Your task to perform on an android device: empty trash in the gmail app Image 0: 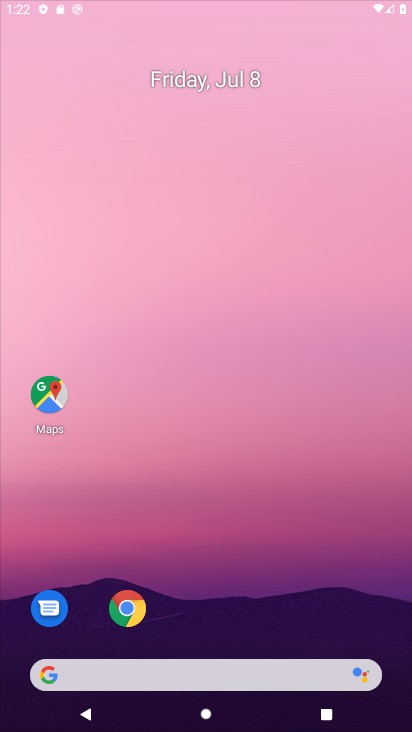
Step 0: drag from (198, 644) to (297, 89)
Your task to perform on an android device: empty trash in the gmail app Image 1: 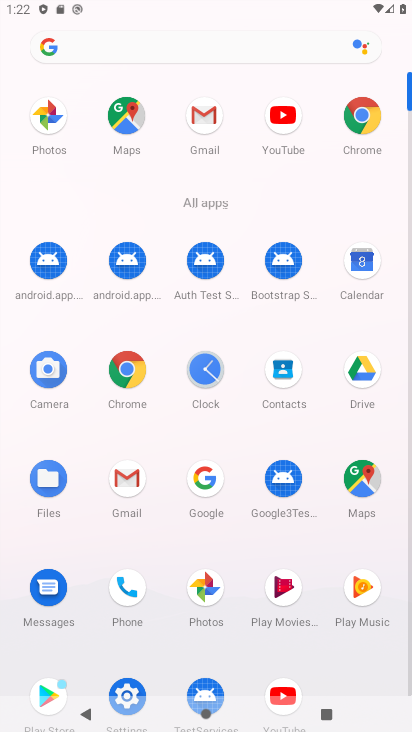
Step 1: click (131, 461)
Your task to perform on an android device: empty trash in the gmail app Image 2: 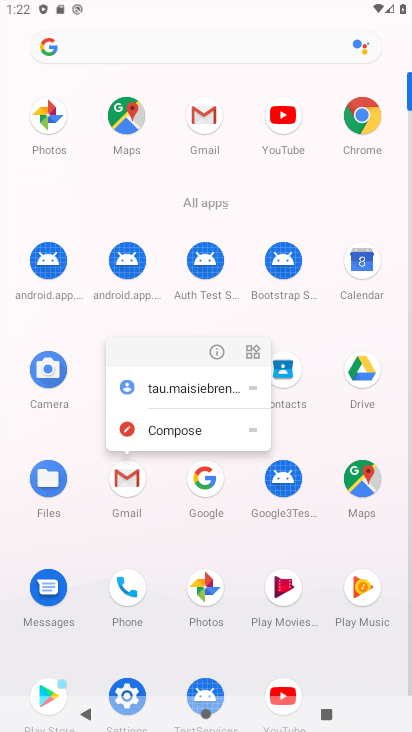
Step 2: click (130, 476)
Your task to perform on an android device: empty trash in the gmail app Image 3: 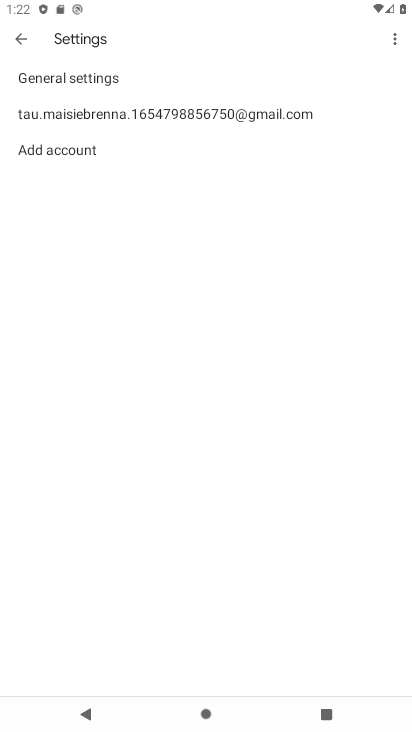
Step 3: press back button
Your task to perform on an android device: empty trash in the gmail app Image 4: 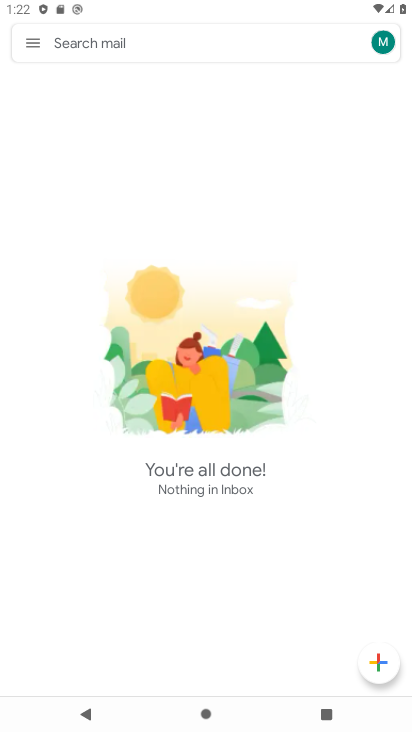
Step 4: click (35, 33)
Your task to perform on an android device: empty trash in the gmail app Image 5: 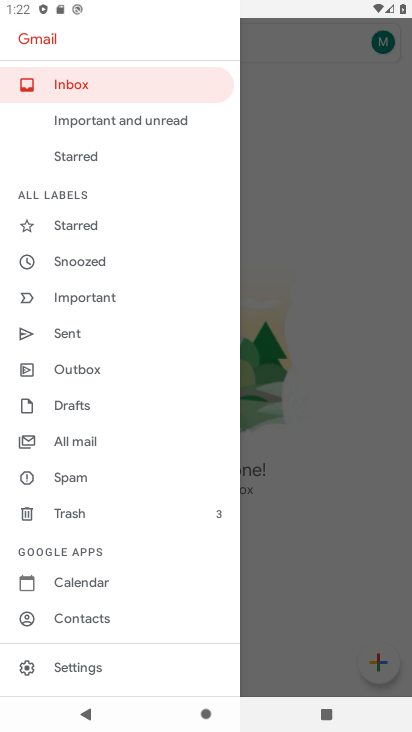
Step 5: click (96, 501)
Your task to perform on an android device: empty trash in the gmail app Image 6: 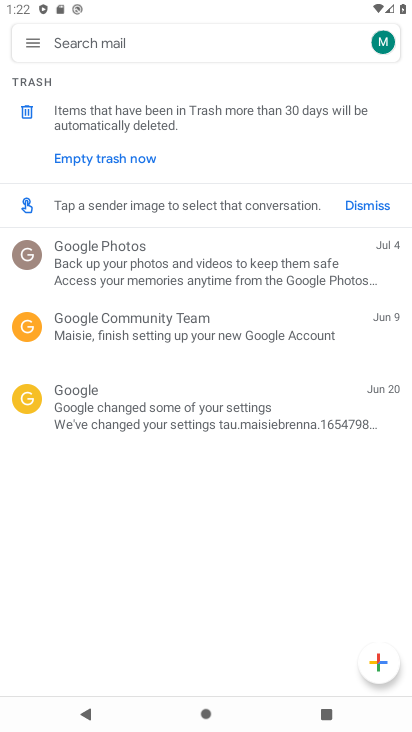
Step 6: click (122, 161)
Your task to perform on an android device: empty trash in the gmail app Image 7: 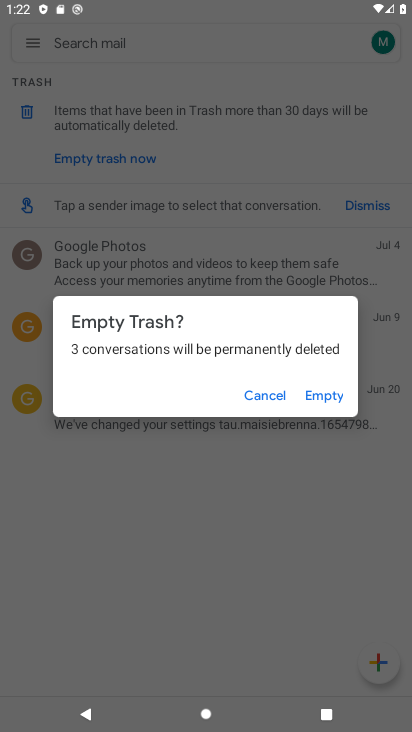
Step 7: click (326, 396)
Your task to perform on an android device: empty trash in the gmail app Image 8: 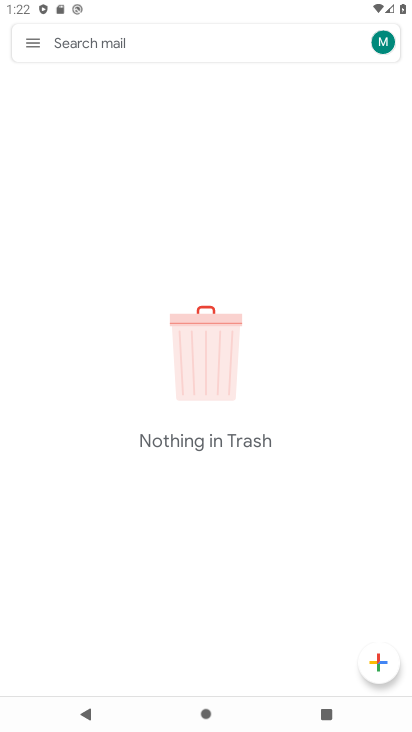
Step 8: task complete